Your task to perform on an android device: Open settings on Google Maps Image 0: 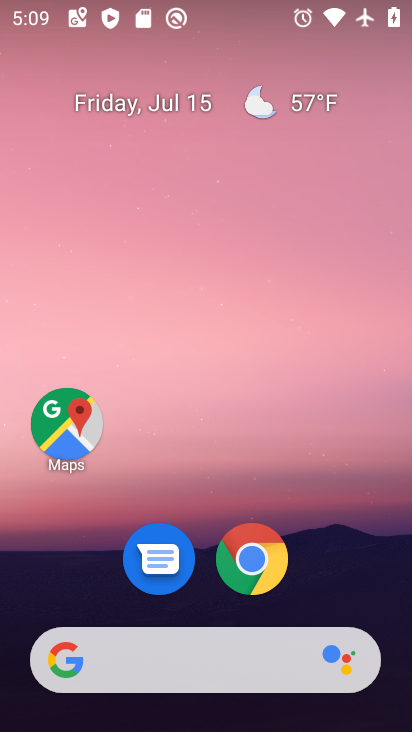
Step 0: click (77, 431)
Your task to perform on an android device: Open settings on Google Maps Image 1: 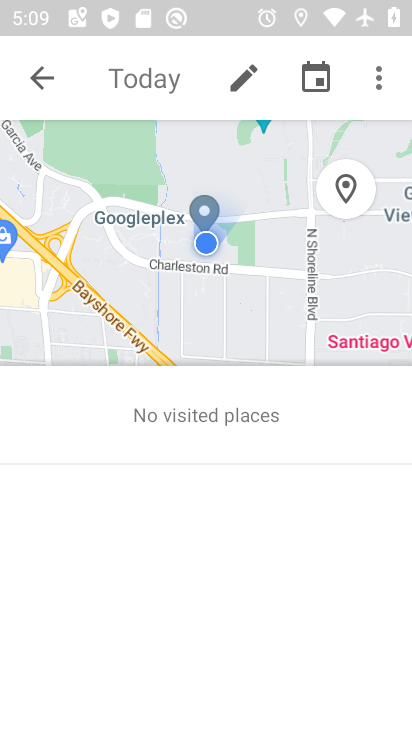
Step 1: click (37, 68)
Your task to perform on an android device: Open settings on Google Maps Image 2: 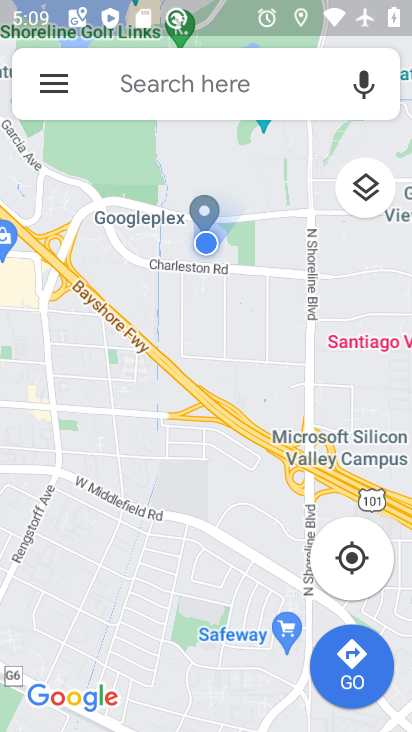
Step 2: click (45, 76)
Your task to perform on an android device: Open settings on Google Maps Image 3: 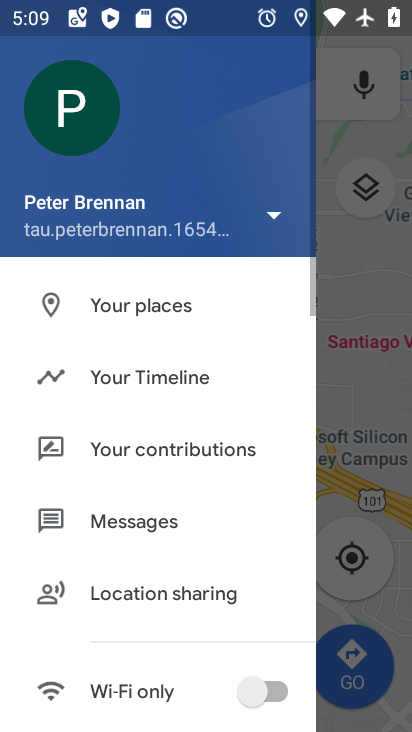
Step 3: drag from (135, 650) to (247, 59)
Your task to perform on an android device: Open settings on Google Maps Image 4: 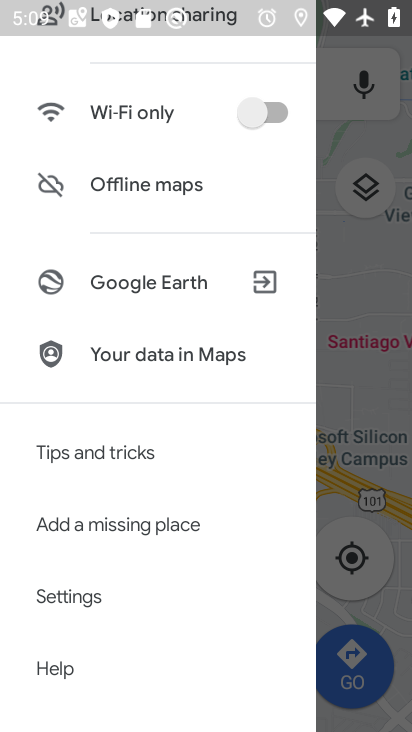
Step 4: click (79, 602)
Your task to perform on an android device: Open settings on Google Maps Image 5: 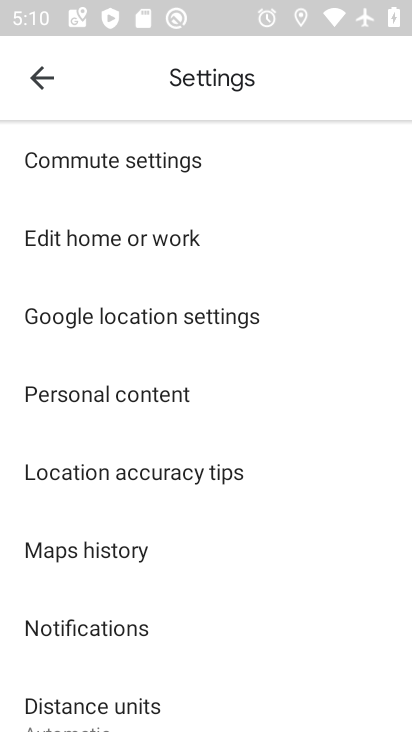
Step 5: task complete